Your task to perform on an android device: Open Google Chrome and click the shortcut for Amazon.com Image 0: 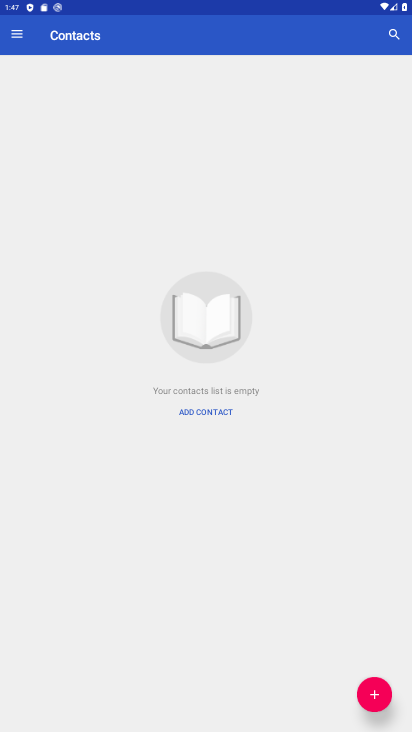
Step 0: press home button
Your task to perform on an android device: Open Google Chrome and click the shortcut for Amazon.com Image 1: 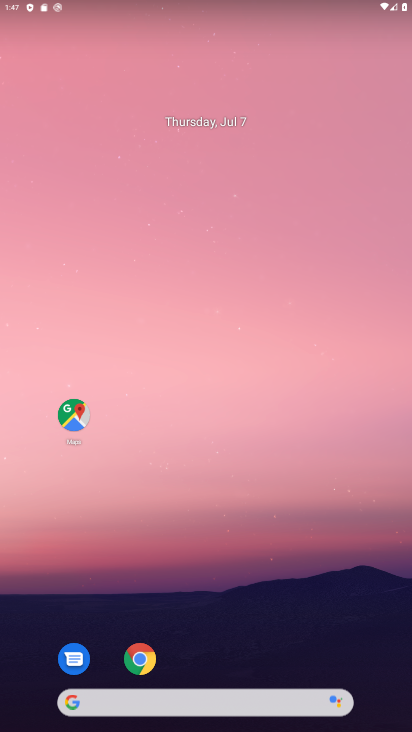
Step 1: drag from (265, 656) to (290, 108)
Your task to perform on an android device: Open Google Chrome and click the shortcut for Amazon.com Image 2: 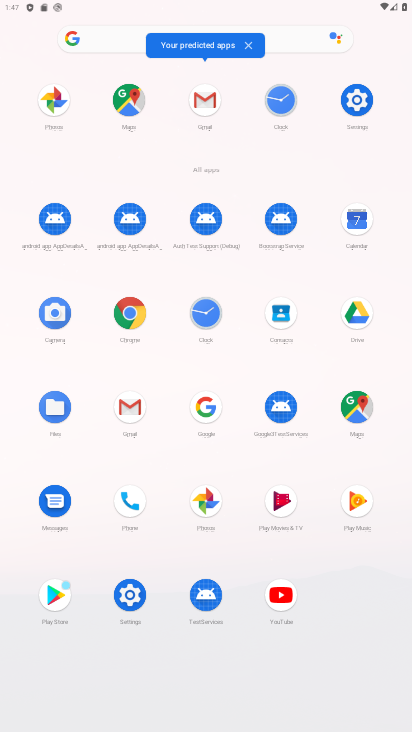
Step 2: click (136, 322)
Your task to perform on an android device: Open Google Chrome and click the shortcut for Amazon.com Image 3: 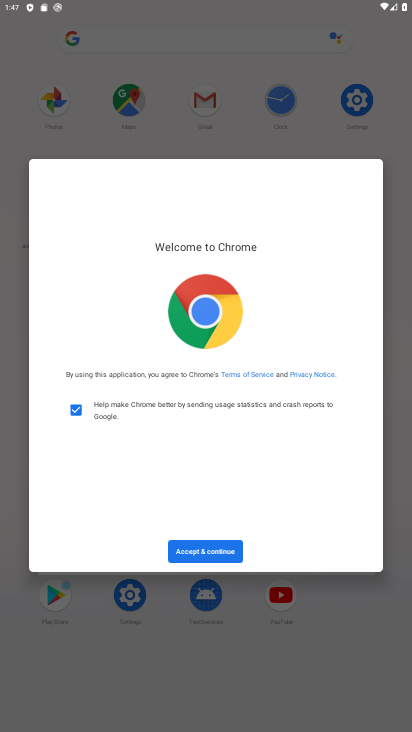
Step 3: click (214, 552)
Your task to perform on an android device: Open Google Chrome and click the shortcut for Amazon.com Image 4: 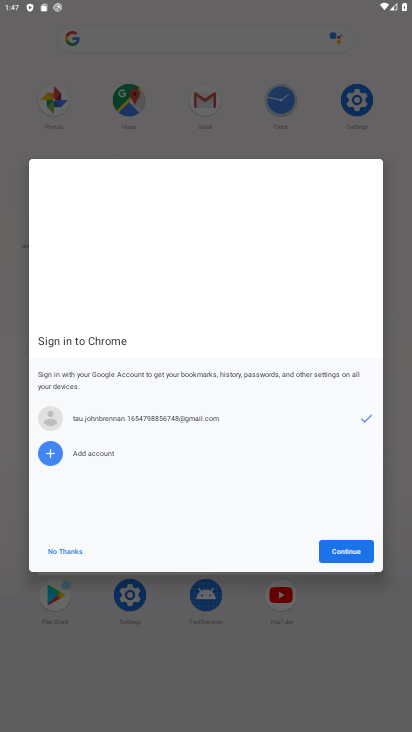
Step 4: click (340, 564)
Your task to perform on an android device: Open Google Chrome and click the shortcut for Amazon.com Image 5: 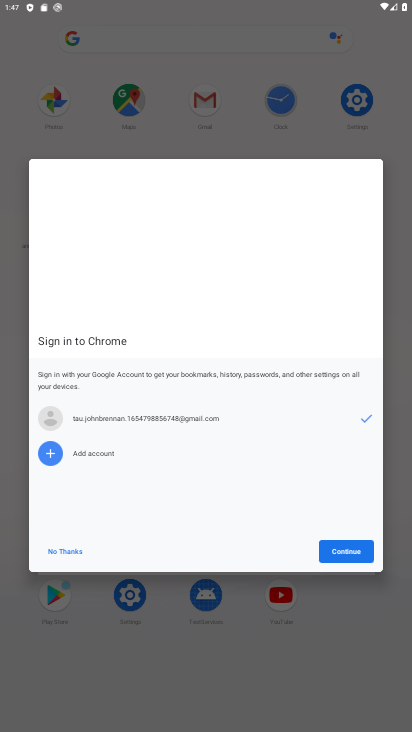
Step 5: click (343, 554)
Your task to perform on an android device: Open Google Chrome and click the shortcut for Amazon.com Image 6: 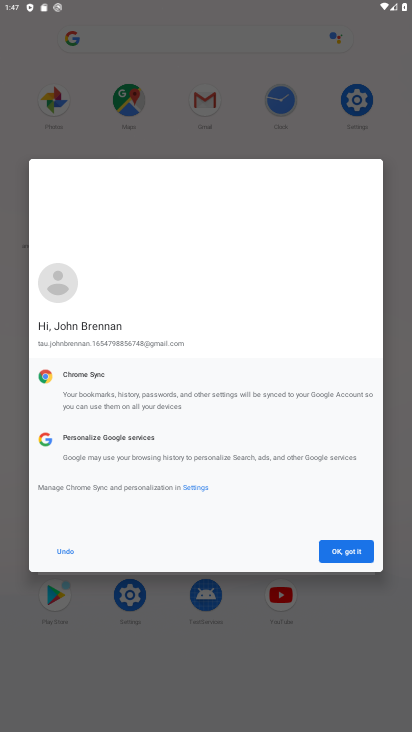
Step 6: click (343, 554)
Your task to perform on an android device: Open Google Chrome and click the shortcut for Amazon.com Image 7: 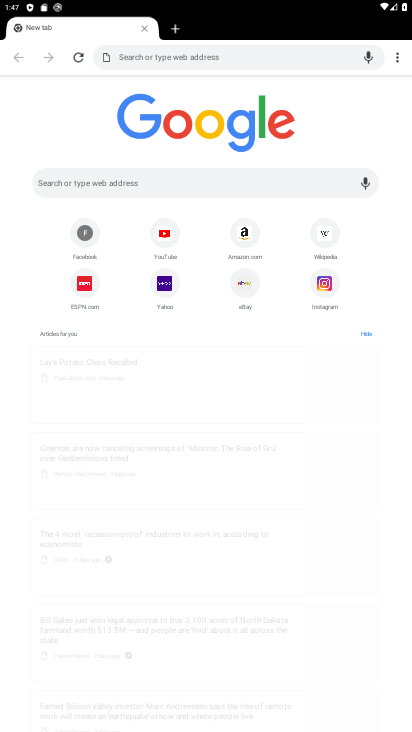
Step 7: click (240, 234)
Your task to perform on an android device: Open Google Chrome and click the shortcut for Amazon.com Image 8: 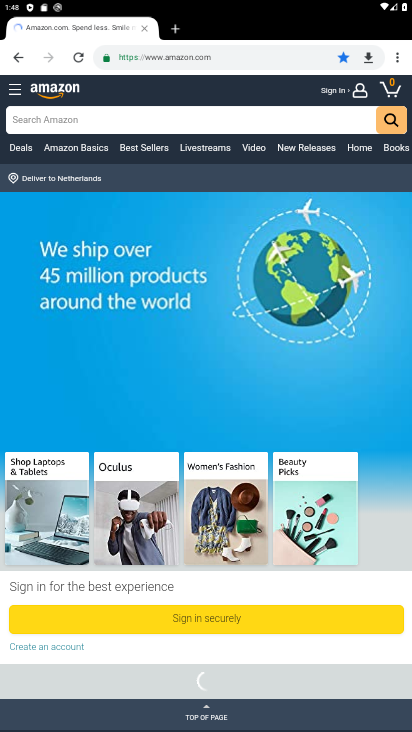
Step 8: task complete